Your task to perform on an android device: turn on wifi Image 0: 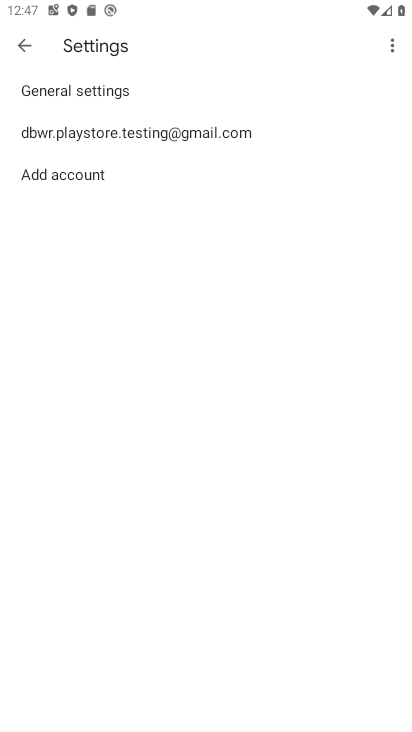
Step 0: drag from (299, 4) to (297, 584)
Your task to perform on an android device: turn on wifi Image 1: 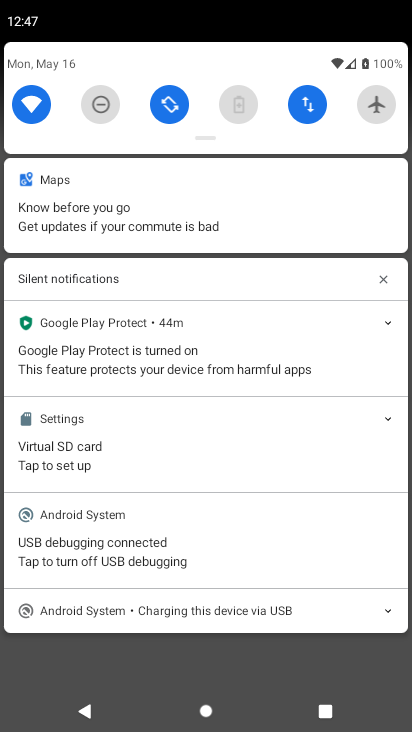
Step 1: task complete